Your task to perform on an android device: When is my next appointment? Image 0: 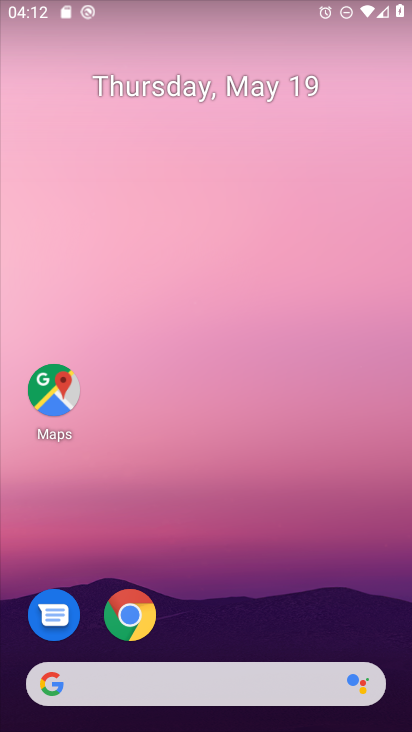
Step 0: click (154, 619)
Your task to perform on an android device: When is my next appointment? Image 1: 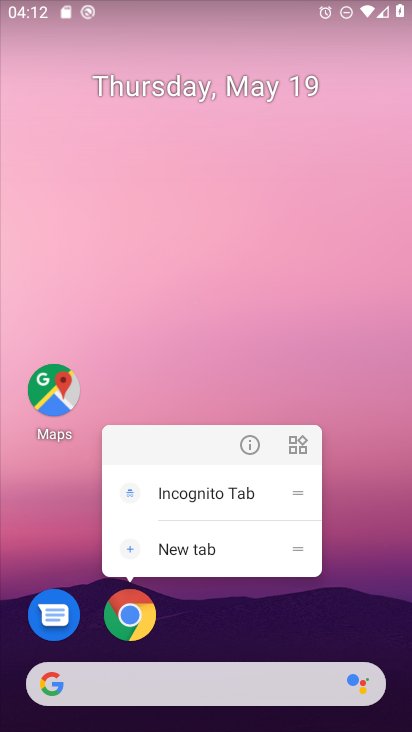
Step 1: click (382, 416)
Your task to perform on an android device: When is my next appointment? Image 2: 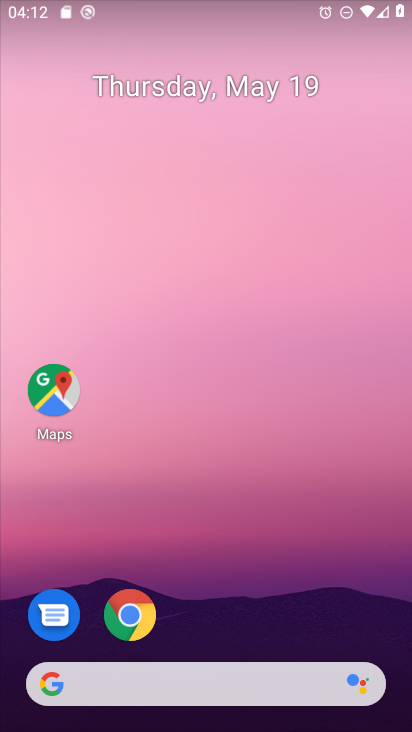
Step 2: drag from (339, 627) to (271, 37)
Your task to perform on an android device: When is my next appointment? Image 3: 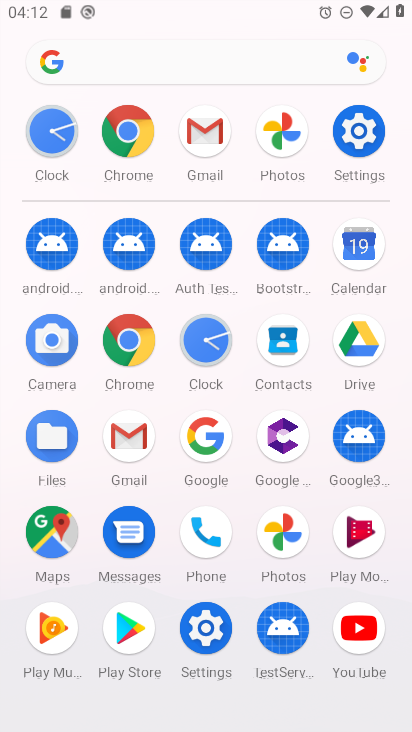
Step 3: click (366, 255)
Your task to perform on an android device: When is my next appointment? Image 4: 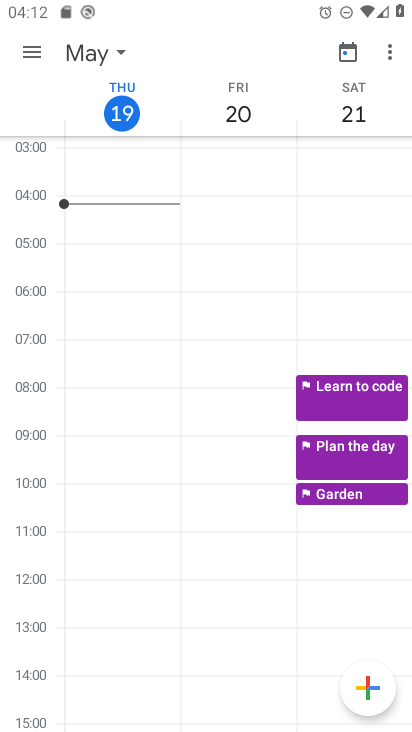
Step 4: click (37, 55)
Your task to perform on an android device: When is my next appointment? Image 5: 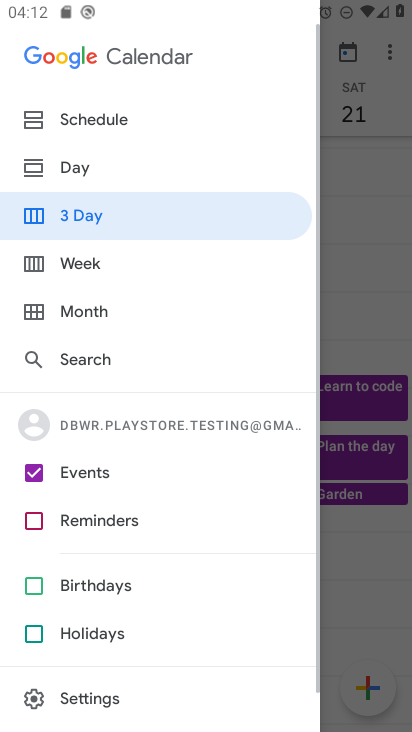
Step 5: click (125, 116)
Your task to perform on an android device: When is my next appointment? Image 6: 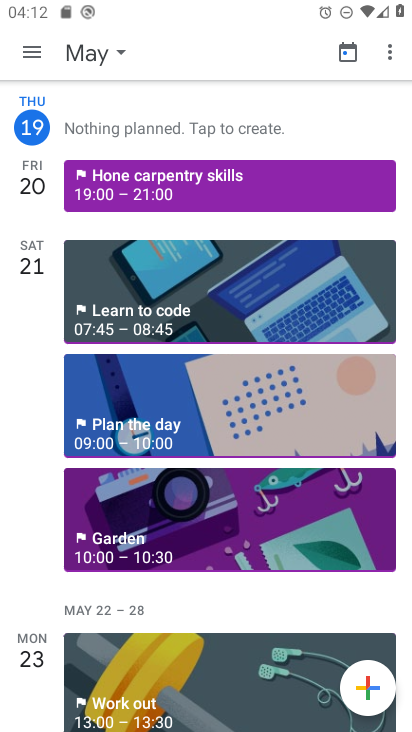
Step 6: task complete